Your task to perform on an android device: Go to privacy settings Image 0: 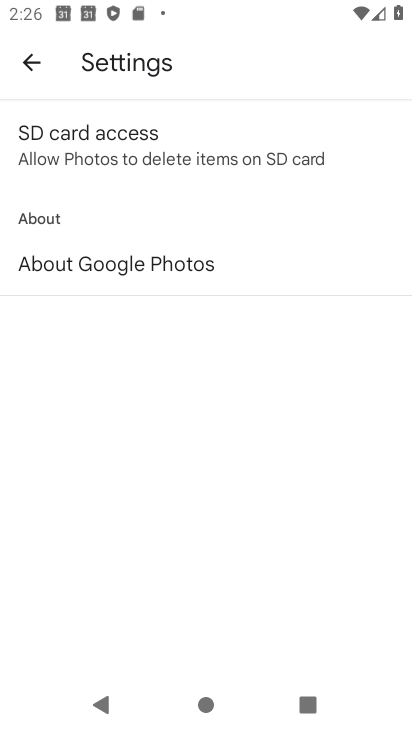
Step 0: drag from (178, 567) to (282, 40)
Your task to perform on an android device: Go to privacy settings Image 1: 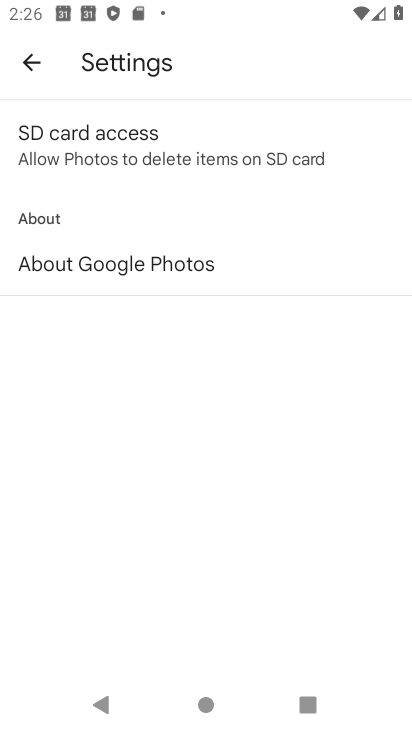
Step 1: press home button
Your task to perform on an android device: Go to privacy settings Image 2: 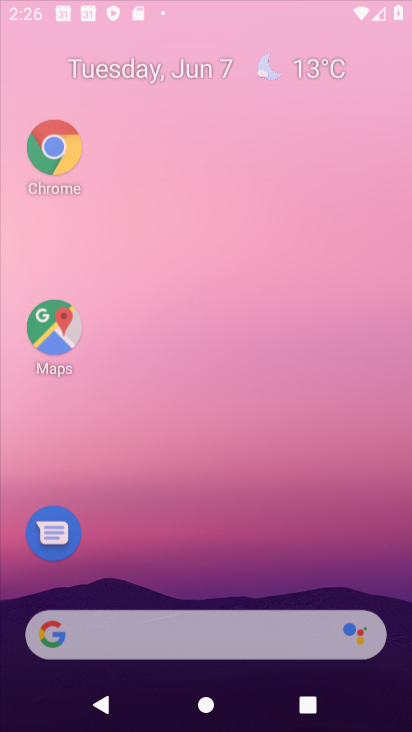
Step 2: drag from (317, 597) to (327, 10)
Your task to perform on an android device: Go to privacy settings Image 3: 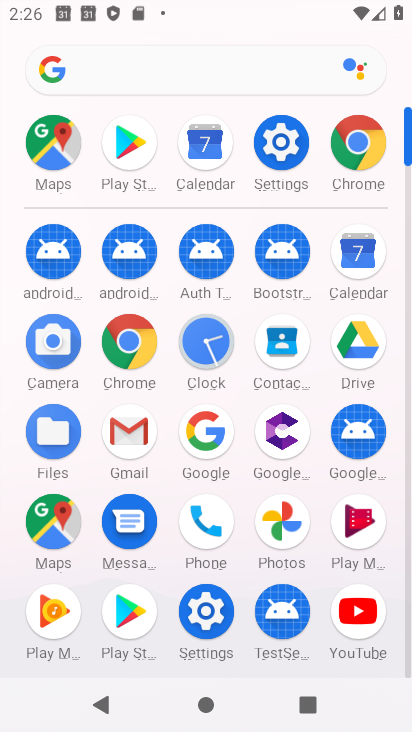
Step 3: click (283, 162)
Your task to perform on an android device: Go to privacy settings Image 4: 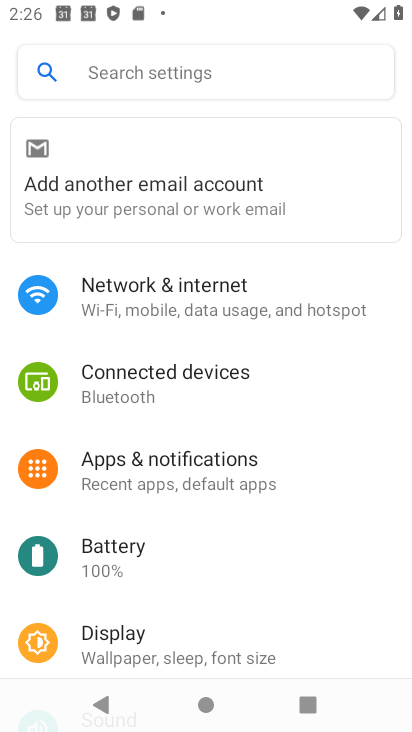
Step 4: drag from (165, 564) to (266, 96)
Your task to perform on an android device: Go to privacy settings Image 5: 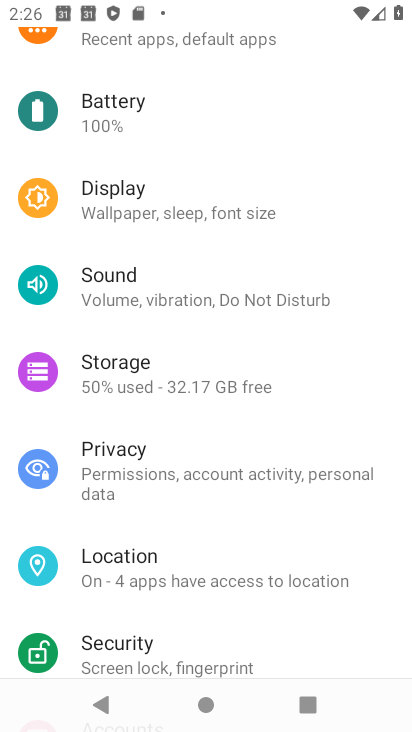
Step 5: click (151, 457)
Your task to perform on an android device: Go to privacy settings Image 6: 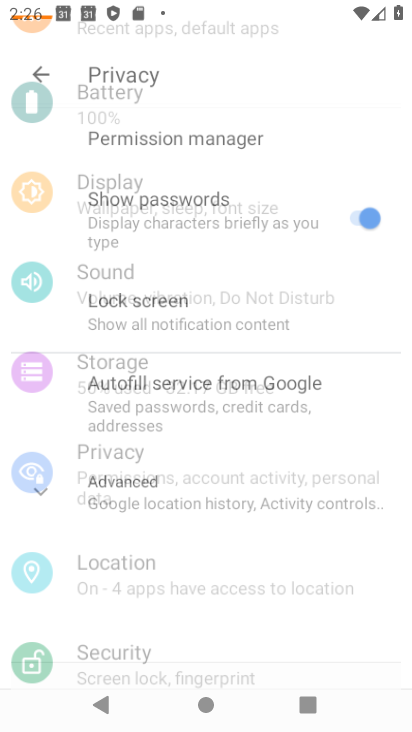
Step 6: task complete